Your task to perform on an android device: Open Chrome and go to settings Image 0: 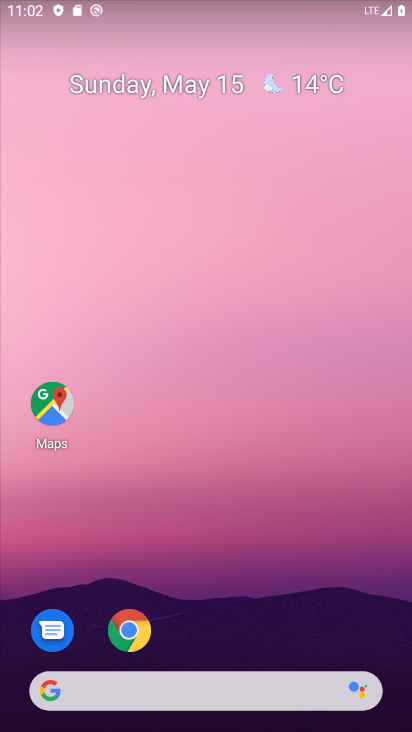
Step 0: click (132, 625)
Your task to perform on an android device: Open Chrome and go to settings Image 1: 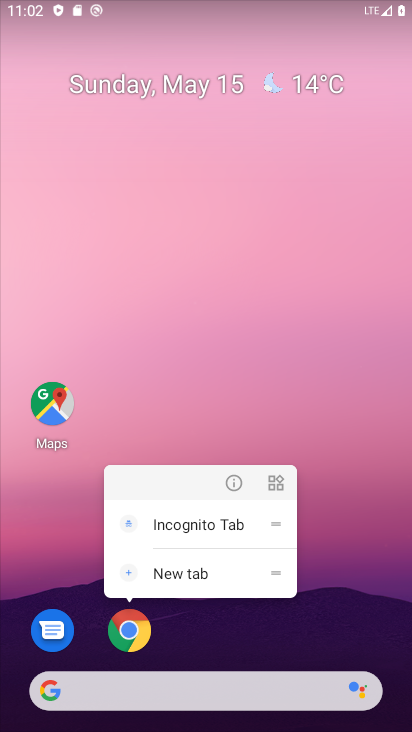
Step 1: click (130, 613)
Your task to perform on an android device: Open Chrome and go to settings Image 2: 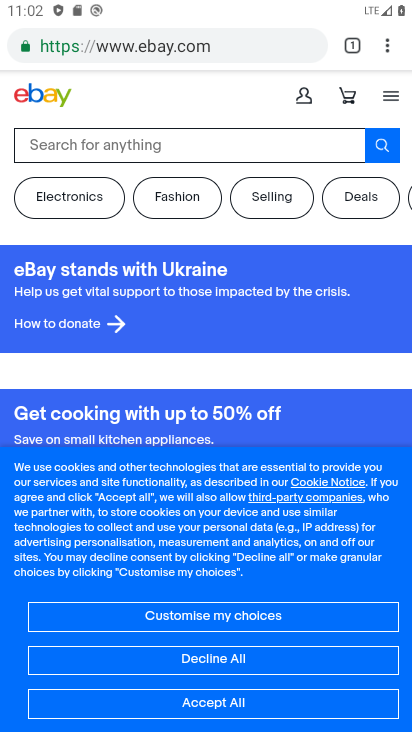
Step 2: click (387, 46)
Your task to perform on an android device: Open Chrome and go to settings Image 3: 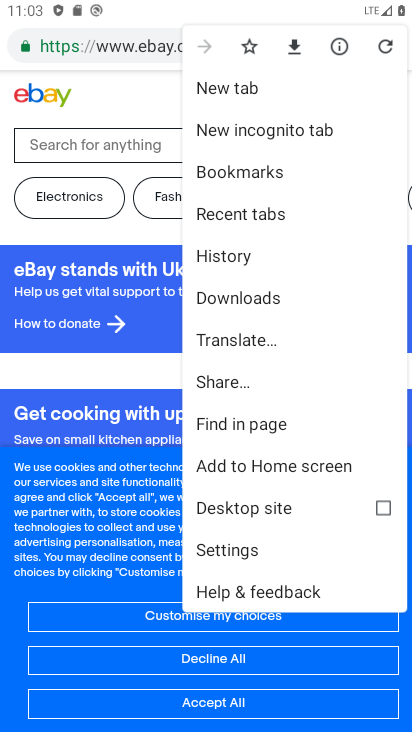
Step 3: click (217, 551)
Your task to perform on an android device: Open Chrome and go to settings Image 4: 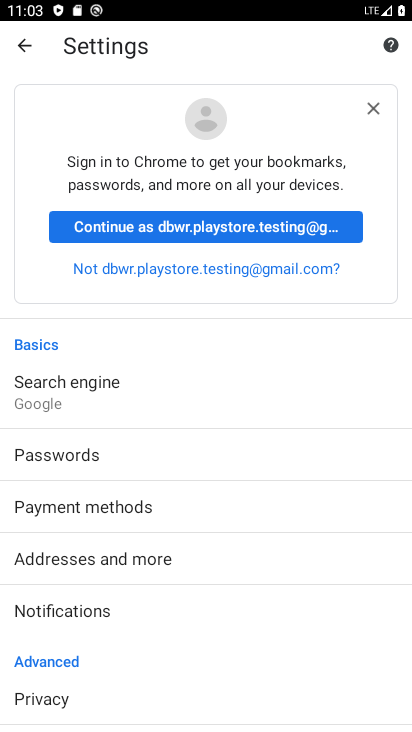
Step 4: task complete